Your task to perform on an android device: delete the emails in spam in the gmail app Image 0: 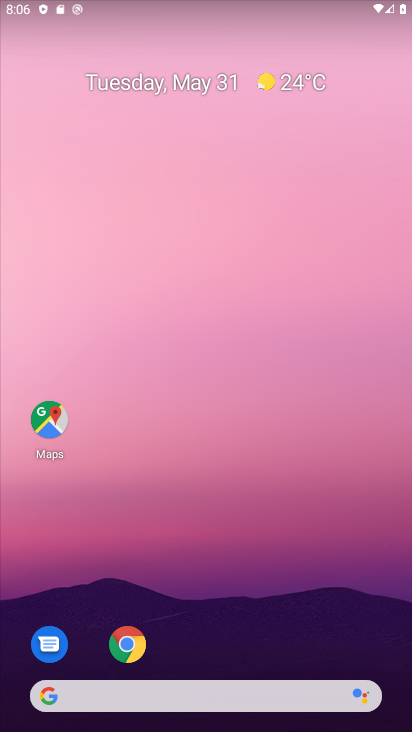
Step 0: drag from (247, 613) to (255, 195)
Your task to perform on an android device: delete the emails in spam in the gmail app Image 1: 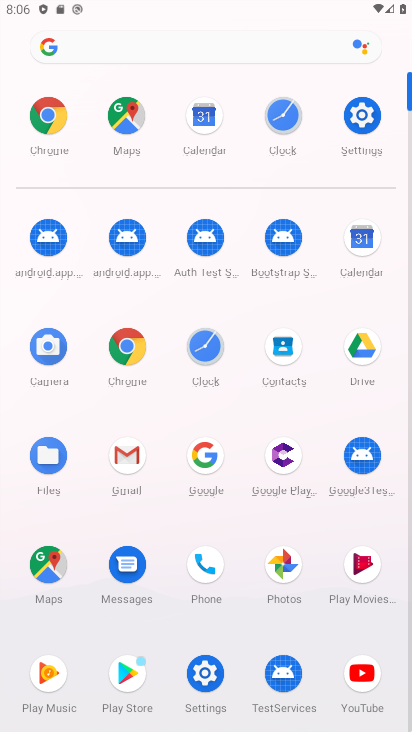
Step 1: click (116, 481)
Your task to perform on an android device: delete the emails in spam in the gmail app Image 2: 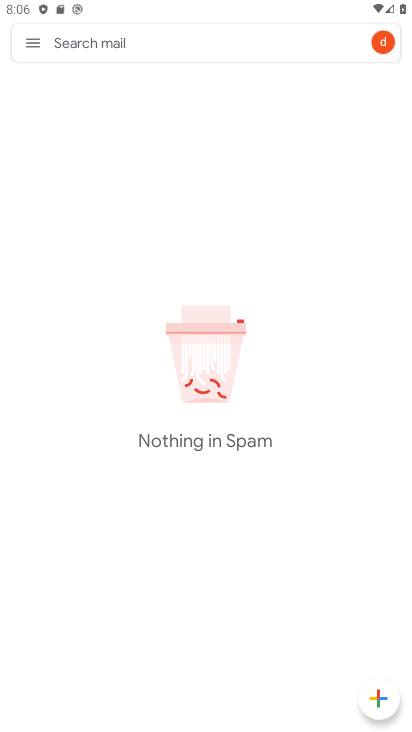
Step 2: task complete